Your task to perform on an android device: delete browsing data in the chrome app Image 0: 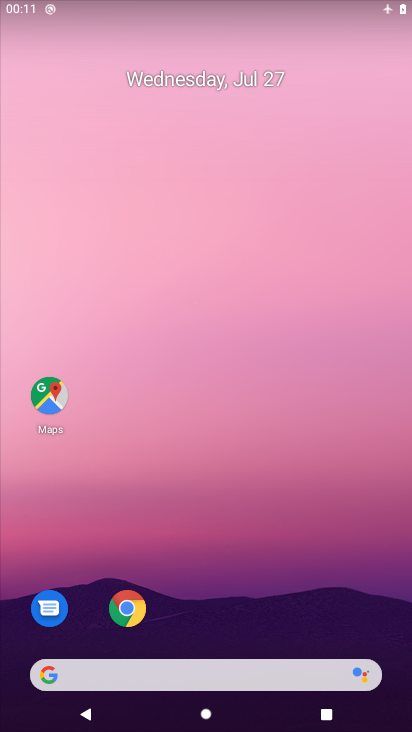
Step 0: press home button
Your task to perform on an android device: delete browsing data in the chrome app Image 1: 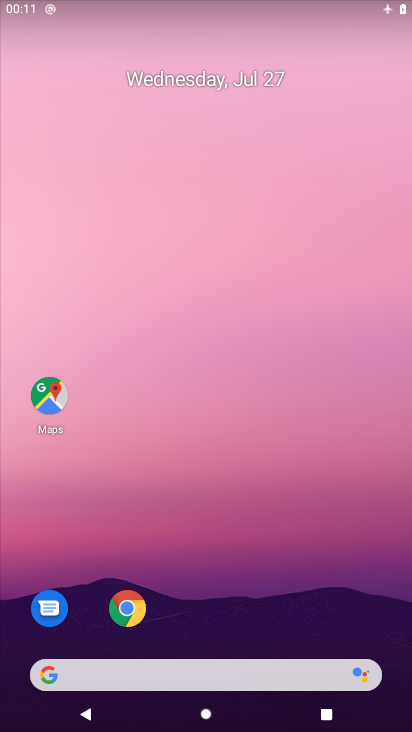
Step 1: drag from (342, 578) to (391, 293)
Your task to perform on an android device: delete browsing data in the chrome app Image 2: 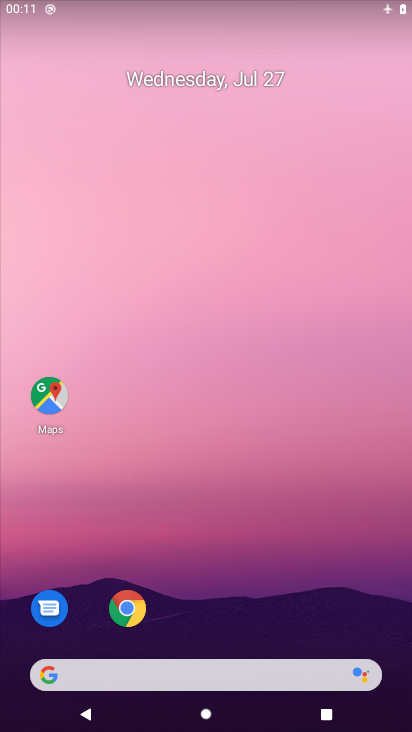
Step 2: drag from (247, 593) to (319, 30)
Your task to perform on an android device: delete browsing data in the chrome app Image 3: 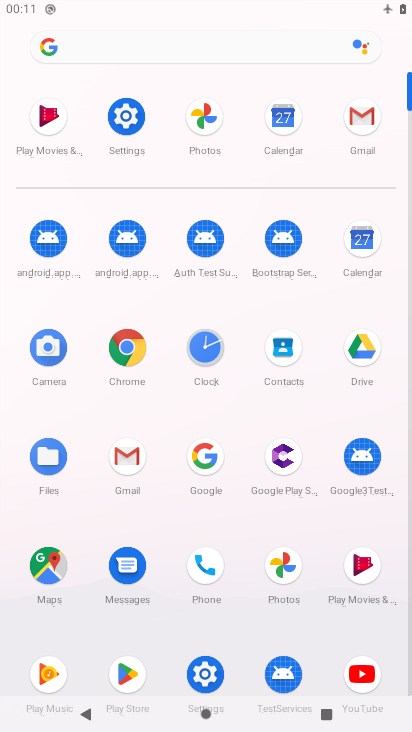
Step 3: click (134, 347)
Your task to perform on an android device: delete browsing data in the chrome app Image 4: 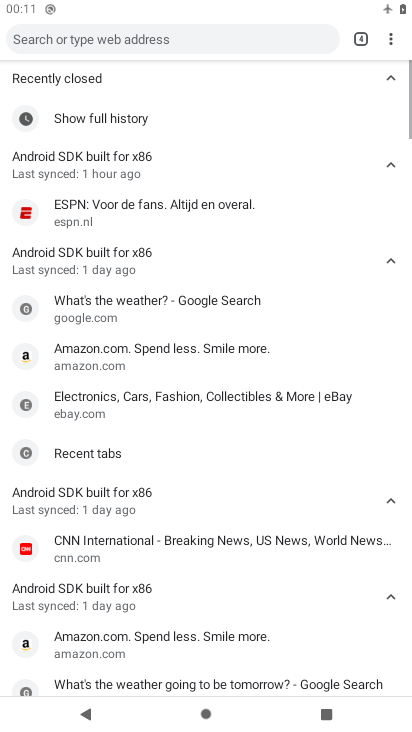
Step 4: click (382, 37)
Your task to perform on an android device: delete browsing data in the chrome app Image 5: 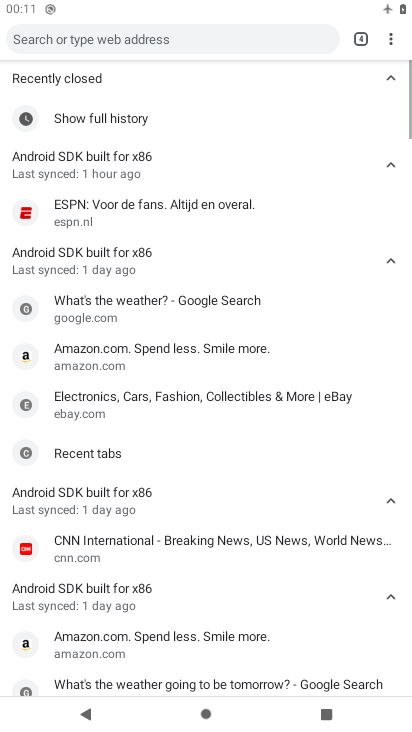
Step 5: drag from (382, 37) to (259, 330)
Your task to perform on an android device: delete browsing data in the chrome app Image 6: 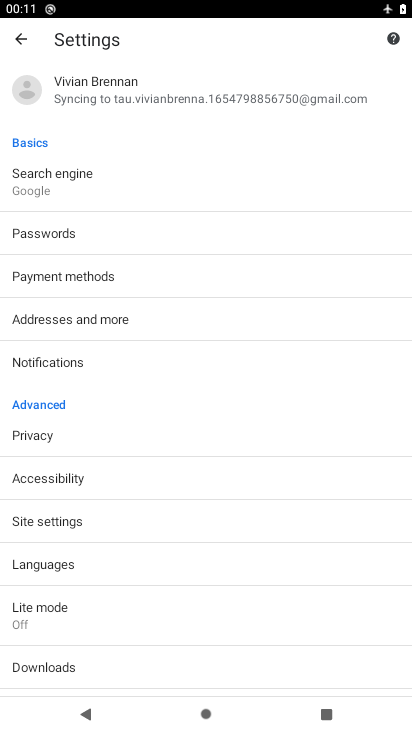
Step 6: click (46, 428)
Your task to perform on an android device: delete browsing data in the chrome app Image 7: 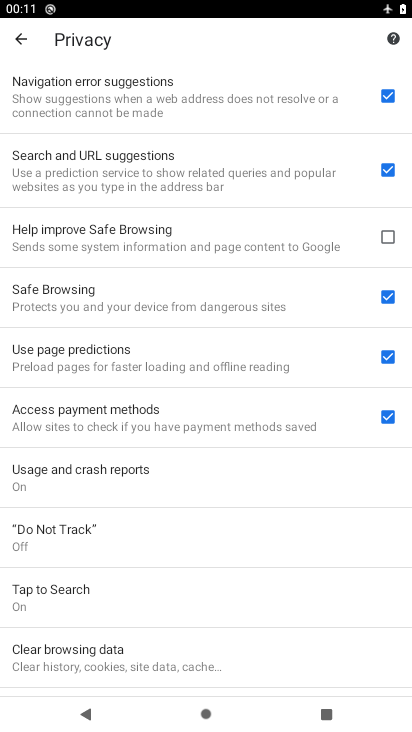
Step 7: click (129, 671)
Your task to perform on an android device: delete browsing data in the chrome app Image 8: 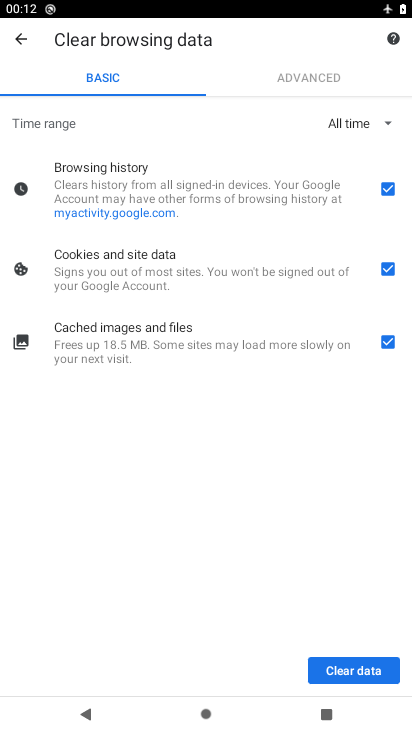
Step 8: click (349, 674)
Your task to perform on an android device: delete browsing data in the chrome app Image 9: 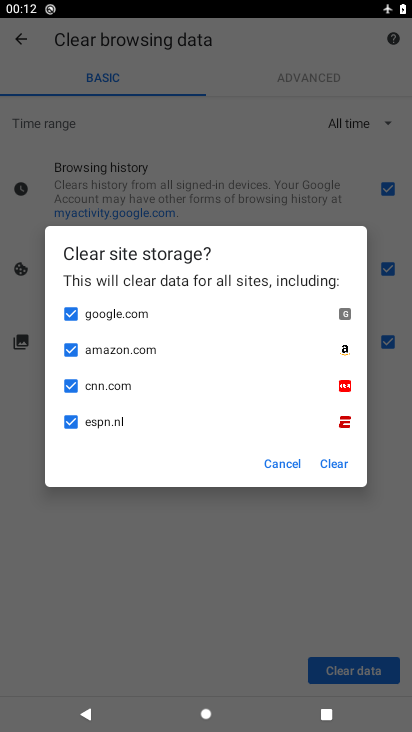
Step 9: click (335, 463)
Your task to perform on an android device: delete browsing data in the chrome app Image 10: 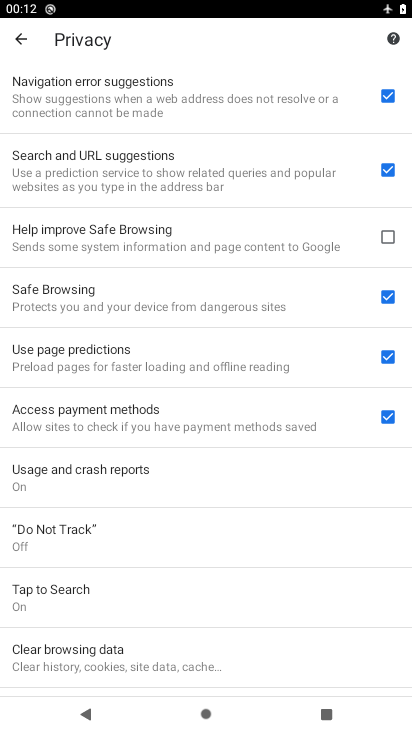
Step 10: task complete